Your task to perform on an android device: Open Chrome and go to settings Image 0: 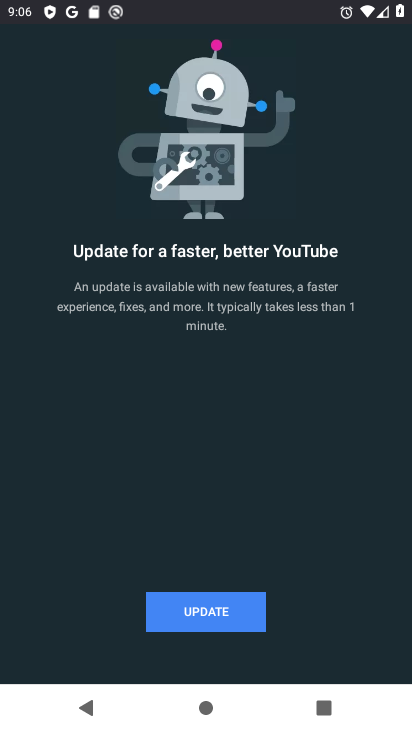
Step 0: press home button
Your task to perform on an android device: Open Chrome and go to settings Image 1: 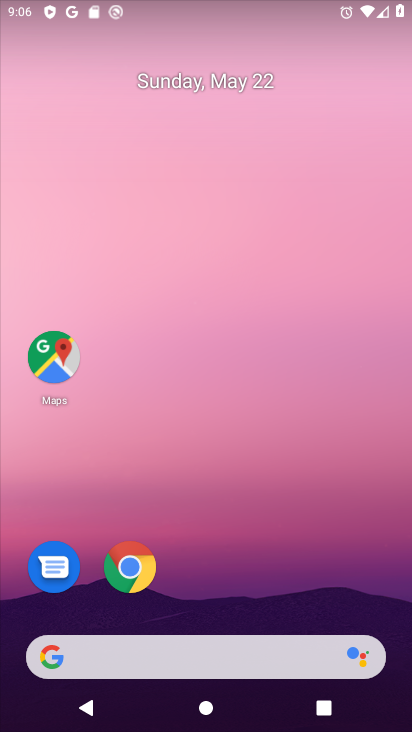
Step 1: click (134, 564)
Your task to perform on an android device: Open Chrome and go to settings Image 2: 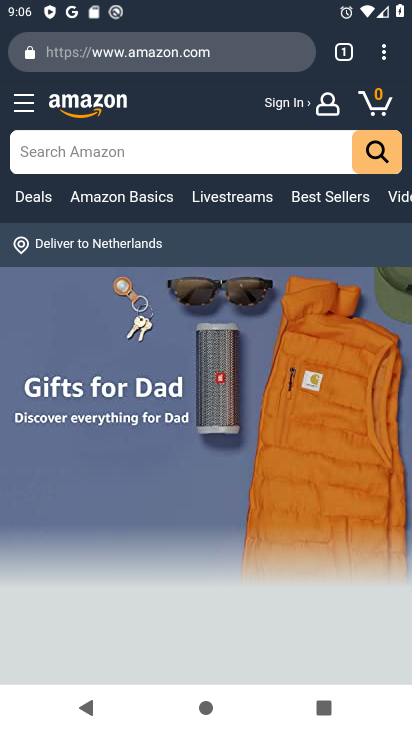
Step 2: click (385, 48)
Your task to perform on an android device: Open Chrome and go to settings Image 3: 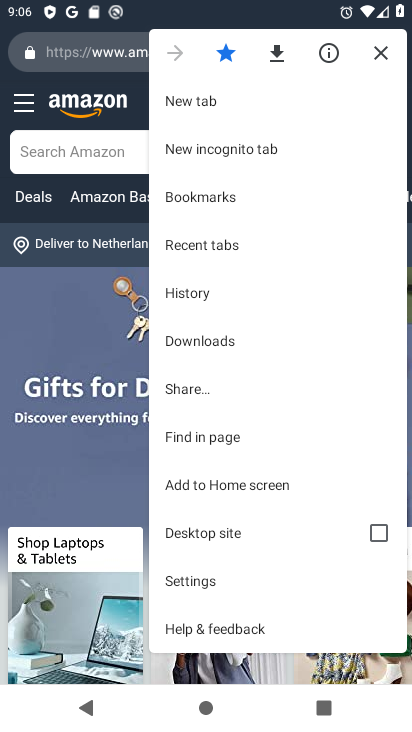
Step 3: click (208, 583)
Your task to perform on an android device: Open Chrome and go to settings Image 4: 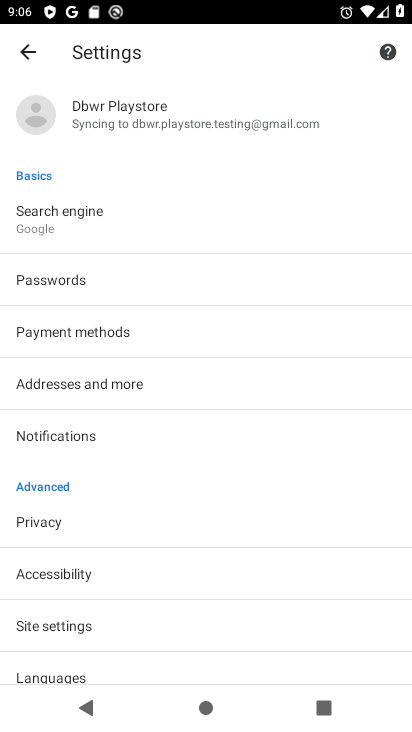
Step 4: task complete